Your task to perform on an android device: turn off javascript in the chrome app Image 0: 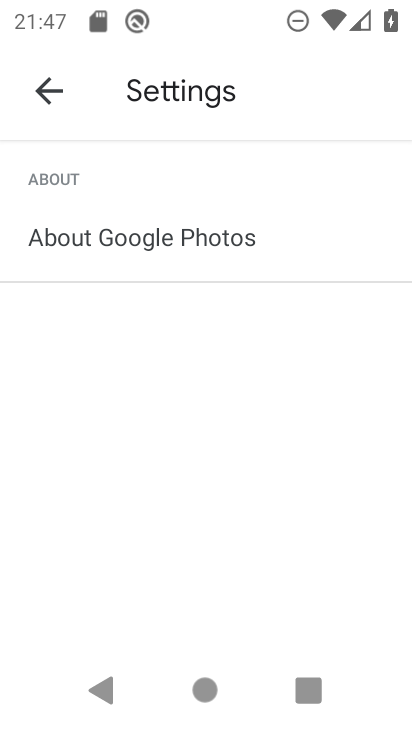
Step 0: press home button
Your task to perform on an android device: turn off javascript in the chrome app Image 1: 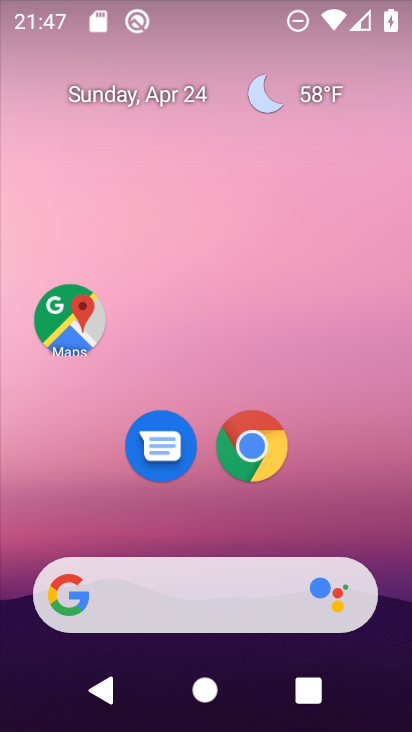
Step 1: drag from (161, 602) to (281, 214)
Your task to perform on an android device: turn off javascript in the chrome app Image 2: 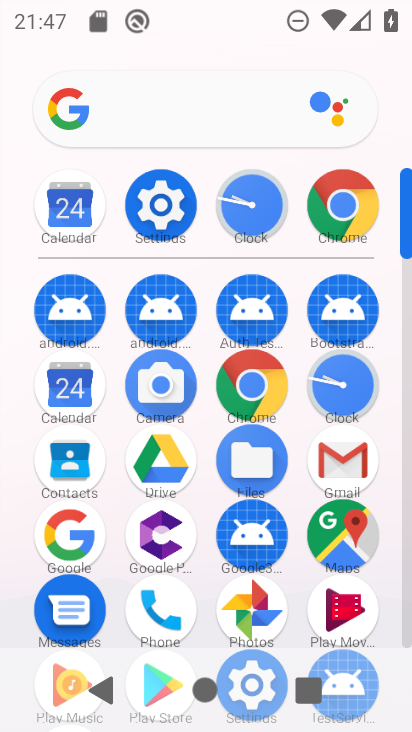
Step 2: click (332, 208)
Your task to perform on an android device: turn off javascript in the chrome app Image 3: 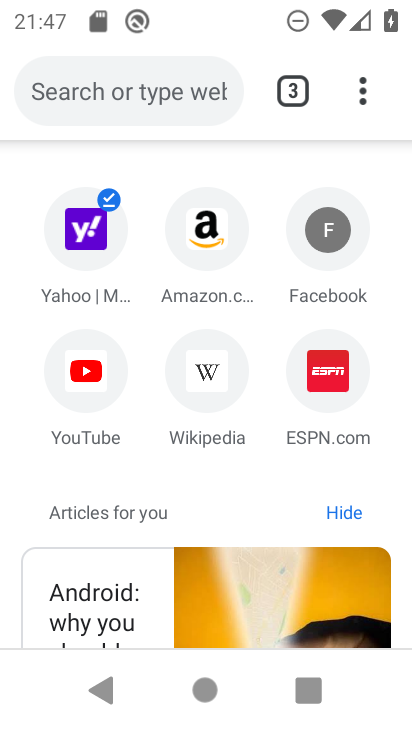
Step 3: drag from (360, 92) to (126, 470)
Your task to perform on an android device: turn off javascript in the chrome app Image 4: 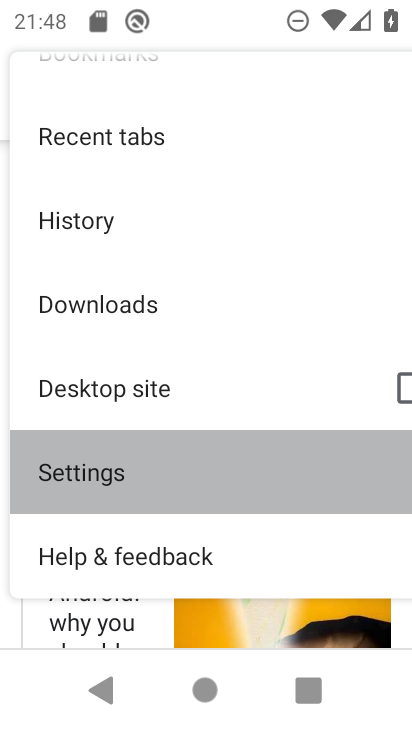
Step 4: click (126, 470)
Your task to perform on an android device: turn off javascript in the chrome app Image 5: 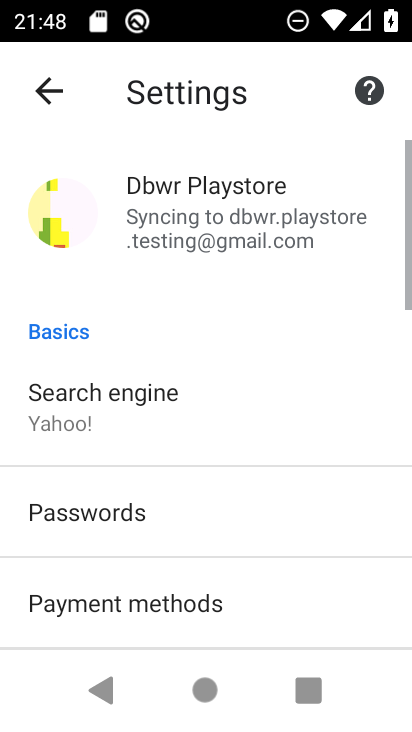
Step 5: drag from (154, 596) to (385, 90)
Your task to perform on an android device: turn off javascript in the chrome app Image 6: 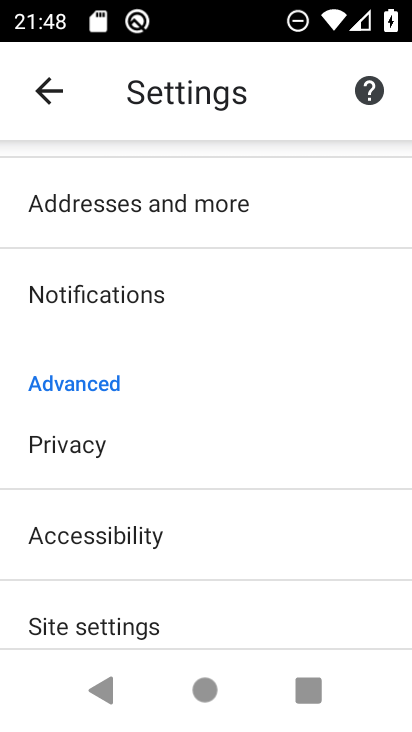
Step 6: click (123, 625)
Your task to perform on an android device: turn off javascript in the chrome app Image 7: 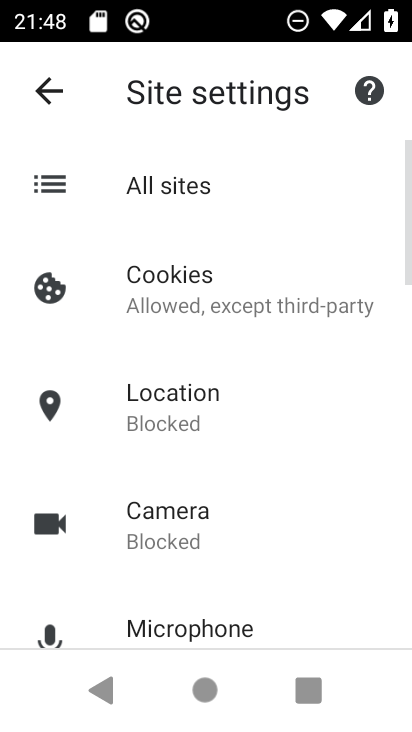
Step 7: drag from (172, 566) to (289, 216)
Your task to perform on an android device: turn off javascript in the chrome app Image 8: 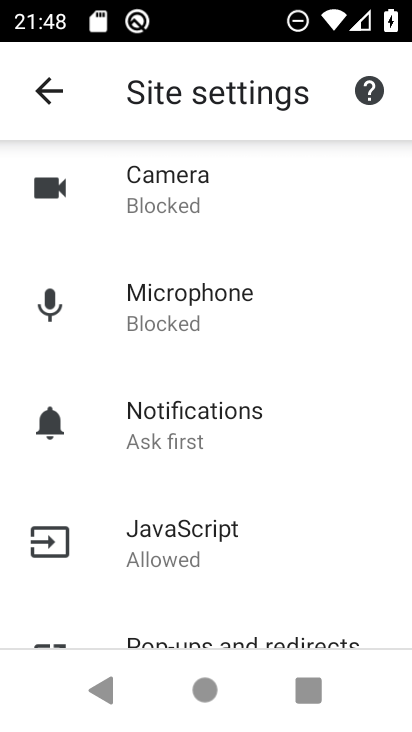
Step 8: click (183, 538)
Your task to perform on an android device: turn off javascript in the chrome app Image 9: 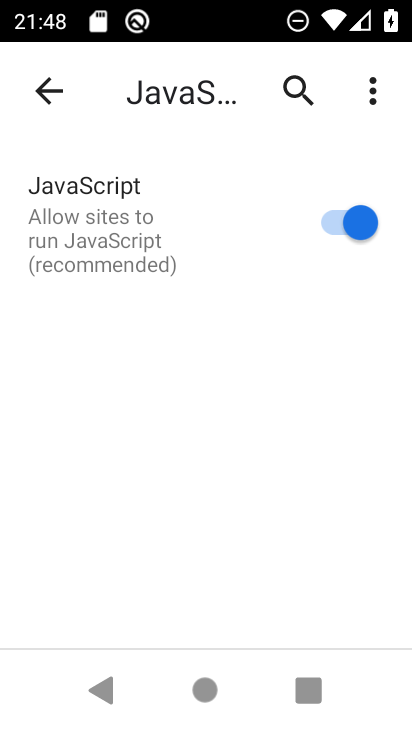
Step 9: click (330, 228)
Your task to perform on an android device: turn off javascript in the chrome app Image 10: 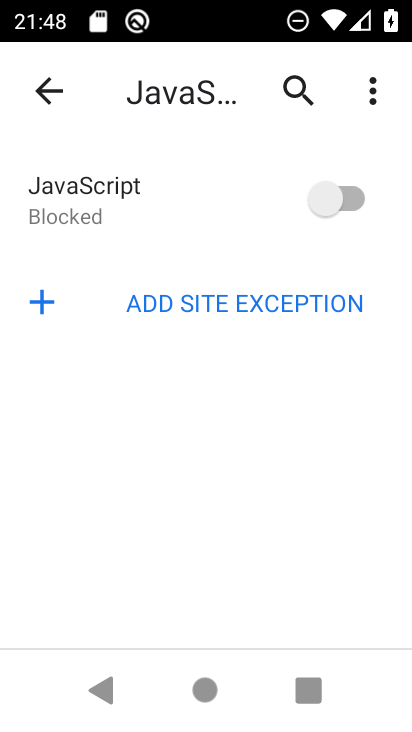
Step 10: task complete